Your task to perform on an android device: turn on priority inbox in the gmail app Image 0: 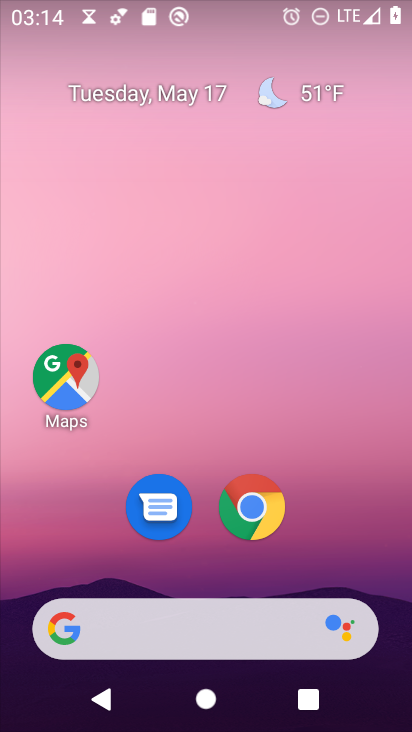
Step 0: drag from (313, 559) to (265, 146)
Your task to perform on an android device: turn on priority inbox in the gmail app Image 1: 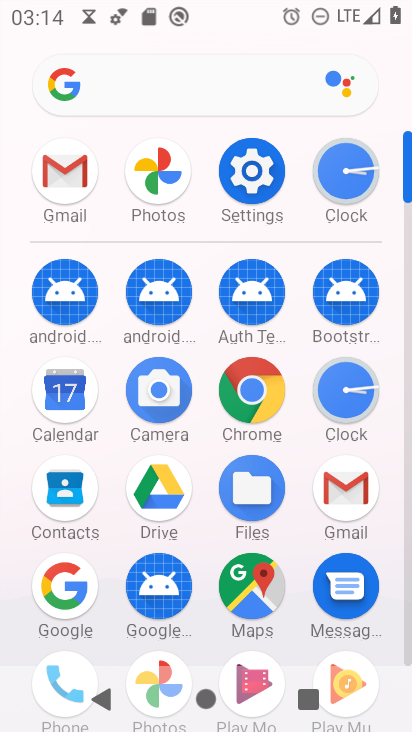
Step 1: click (345, 485)
Your task to perform on an android device: turn on priority inbox in the gmail app Image 2: 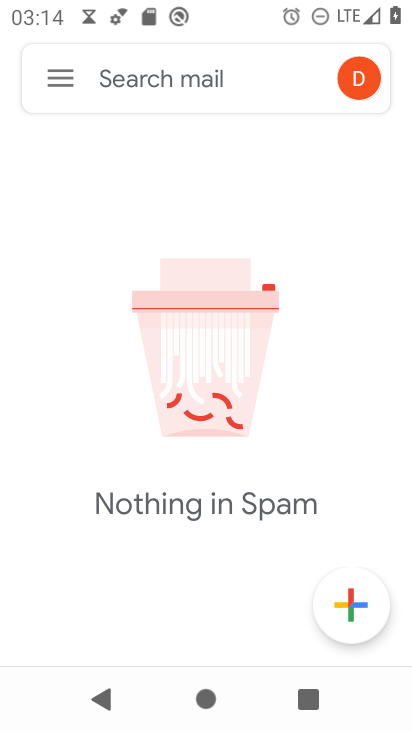
Step 2: click (46, 84)
Your task to perform on an android device: turn on priority inbox in the gmail app Image 3: 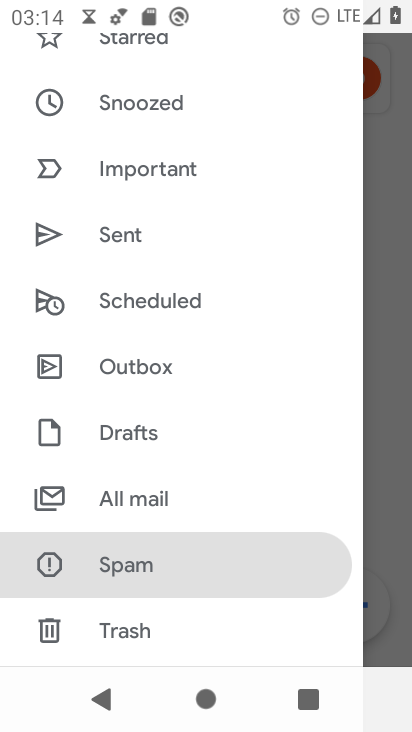
Step 3: drag from (236, 591) to (227, 259)
Your task to perform on an android device: turn on priority inbox in the gmail app Image 4: 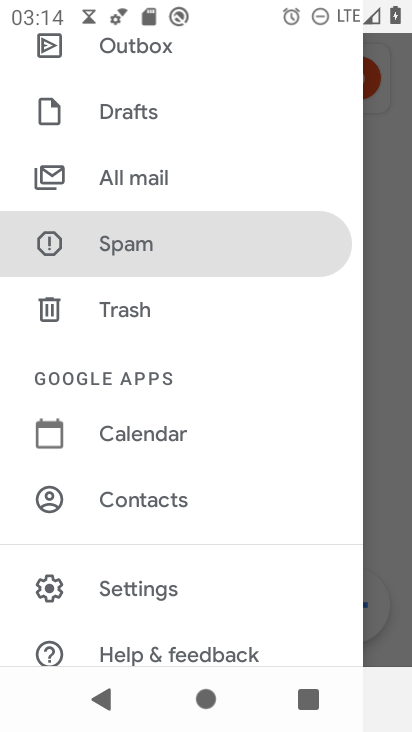
Step 4: click (184, 577)
Your task to perform on an android device: turn on priority inbox in the gmail app Image 5: 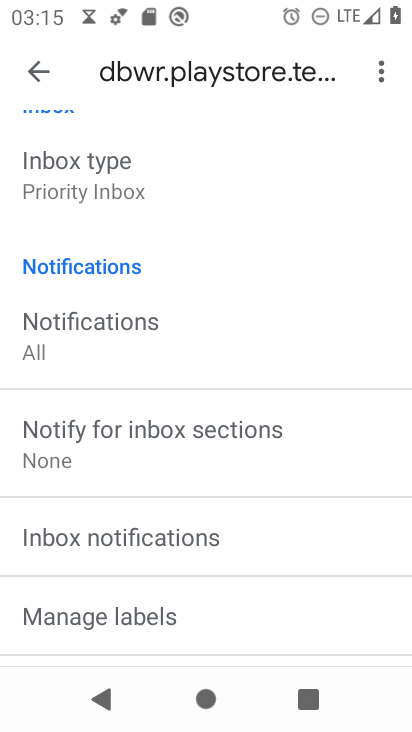
Step 5: click (126, 189)
Your task to perform on an android device: turn on priority inbox in the gmail app Image 6: 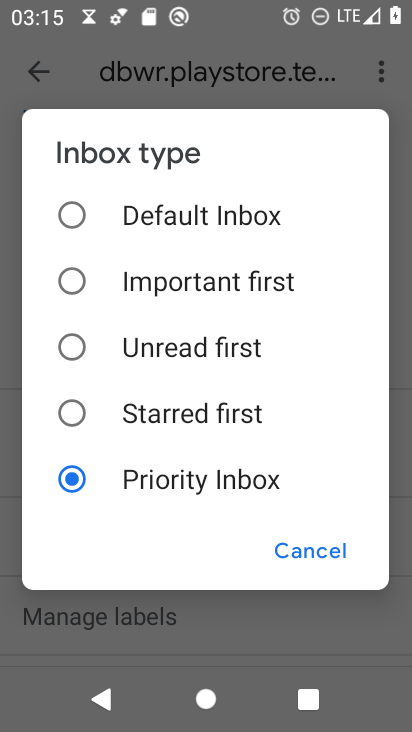
Step 6: click (112, 491)
Your task to perform on an android device: turn on priority inbox in the gmail app Image 7: 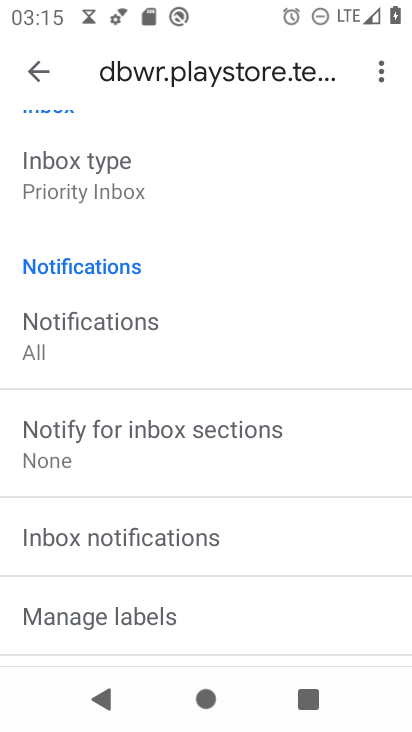
Step 7: task complete